Your task to perform on an android device: toggle improve location accuracy Image 0: 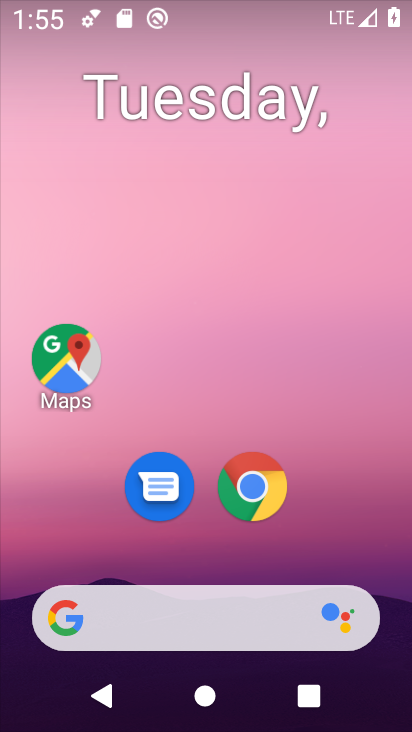
Step 0: press home button
Your task to perform on an android device: toggle improve location accuracy Image 1: 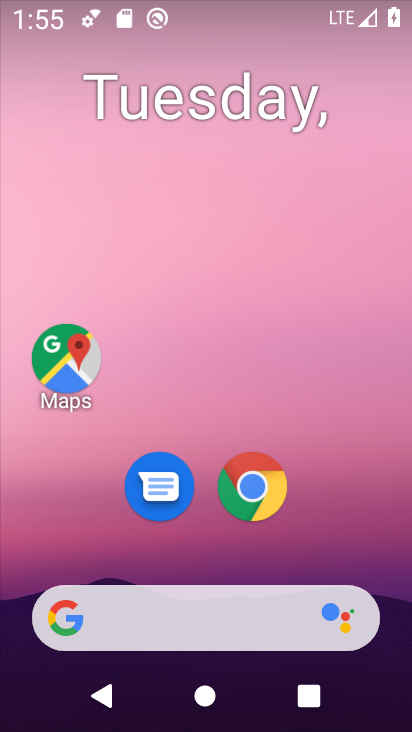
Step 1: drag from (362, 507) to (362, 80)
Your task to perform on an android device: toggle improve location accuracy Image 2: 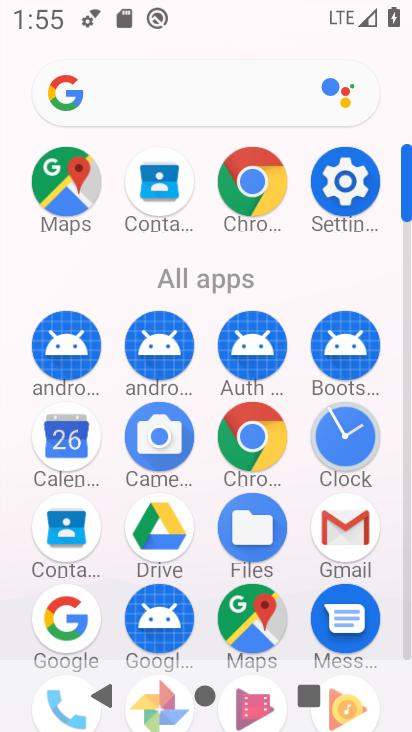
Step 2: click (354, 192)
Your task to perform on an android device: toggle improve location accuracy Image 3: 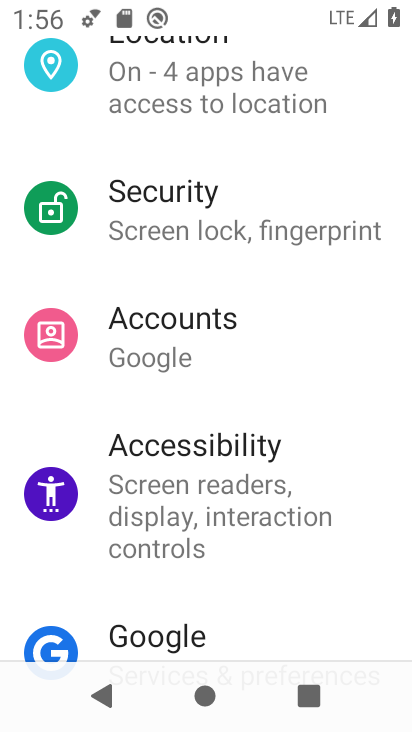
Step 3: drag from (358, 486) to (358, 401)
Your task to perform on an android device: toggle improve location accuracy Image 4: 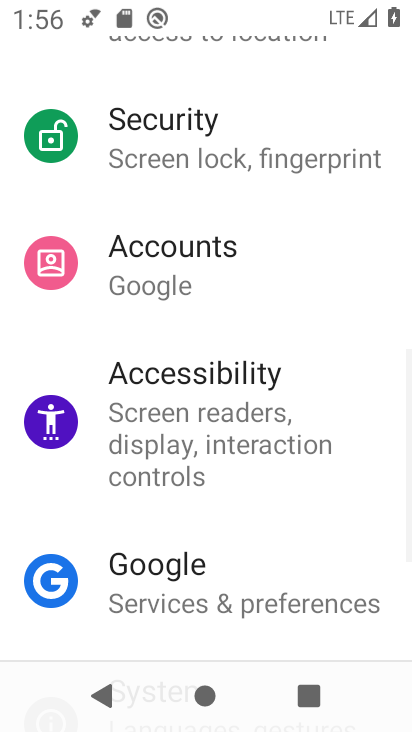
Step 4: drag from (340, 527) to (339, 359)
Your task to perform on an android device: toggle improve location accuracy Image 5: 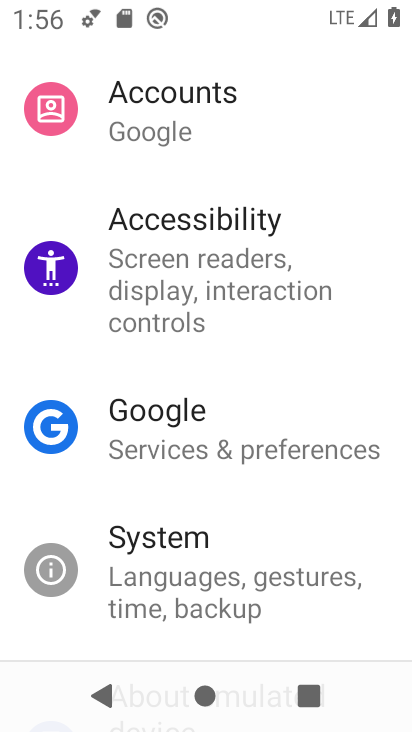
Step 5: drag from (339, 350) to (348, 223)
Your task to perform on an android device: toggle improve location accuracy Image 6: 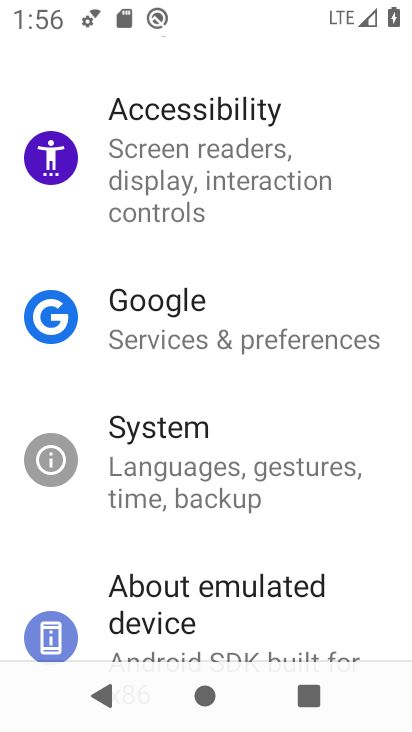
Step 6: drag from (367, 521) to (365, 332)
Your task to perform on an android device: toggle improve location accuracy Image 7: 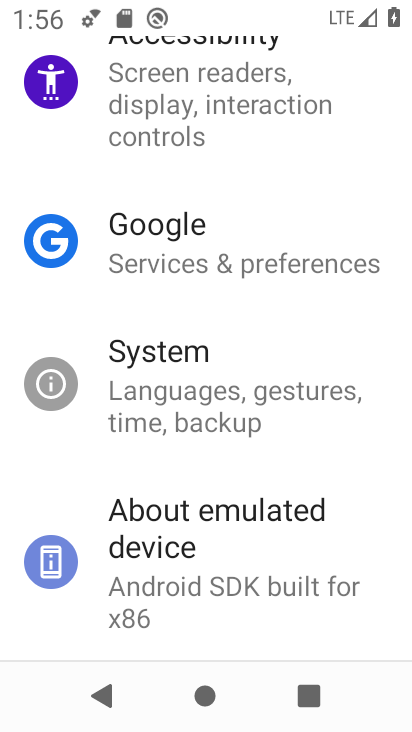
Step 7: drag from (355, 459) to (356, 312)
Your task to perform on an android device: toggle improve location accuracy Image 8: 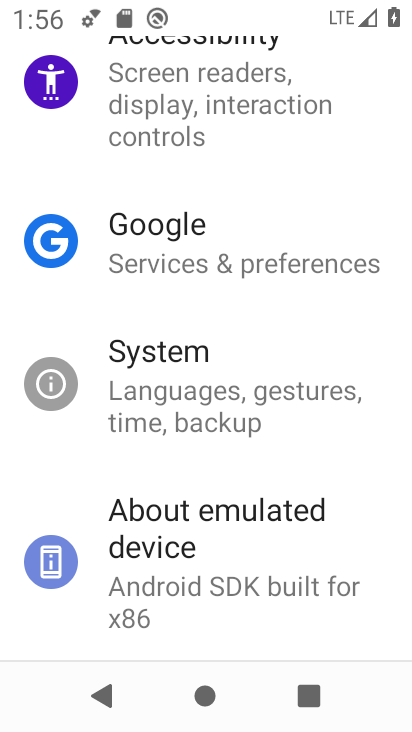
Step 8: drag from (356, 188) to (368, 431)
Your task to perform on an android device: toggle improve location accuracy Image 9: 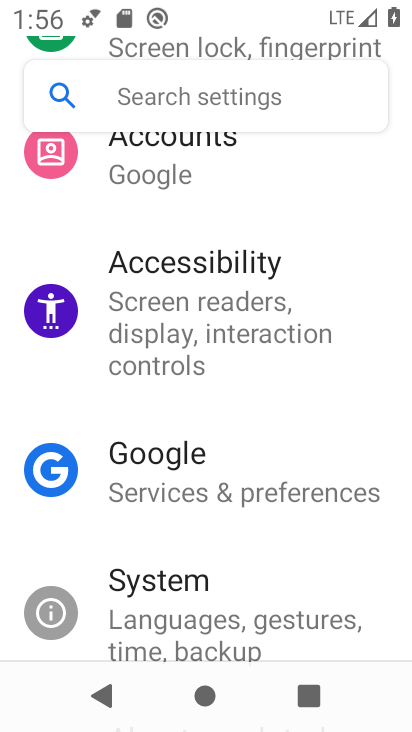
Step 9: drag from (368, 251) to (369, 376)
Your task to perform on an android device: toggle improve location accuracy Image 10: 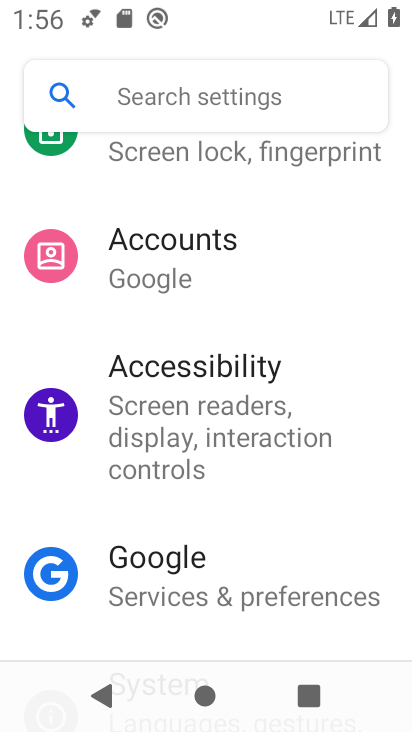
Step 10: drag from (360, 243) to (363, 362)
Your task to perform on an android device: toggle improve location accuracy Image 11: 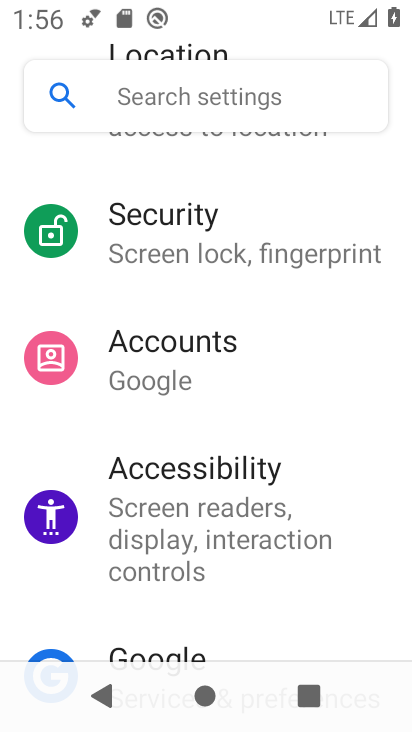
Step 11: drag from (359, 196) to (360, 367)
Your task to perform on an android device: toggle improve location accuracy Image 12: 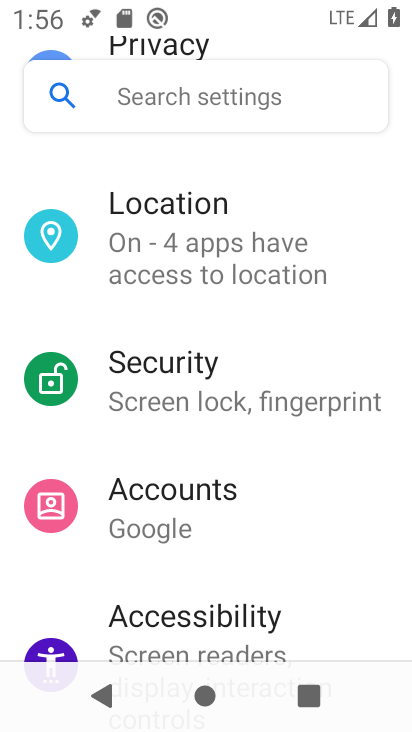
Step 12: drag from (360, 188) to (360, 352)
Your task to perform on an android device: toggle improve location accuracy Image 13: 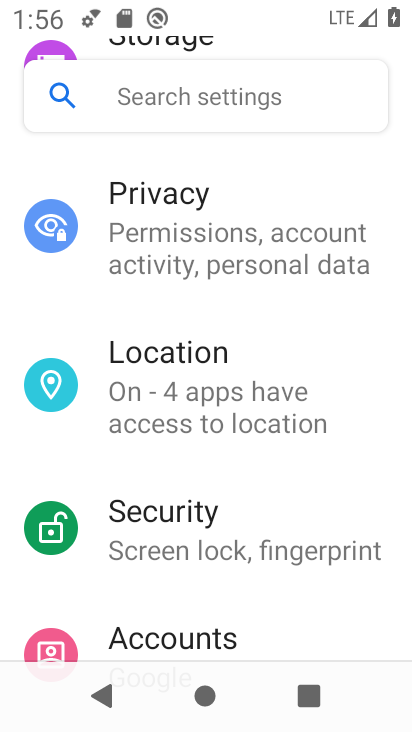
Step 13: click (320, 404)
Your task to perform on an android device: toggle improve location accuracy Image 14: 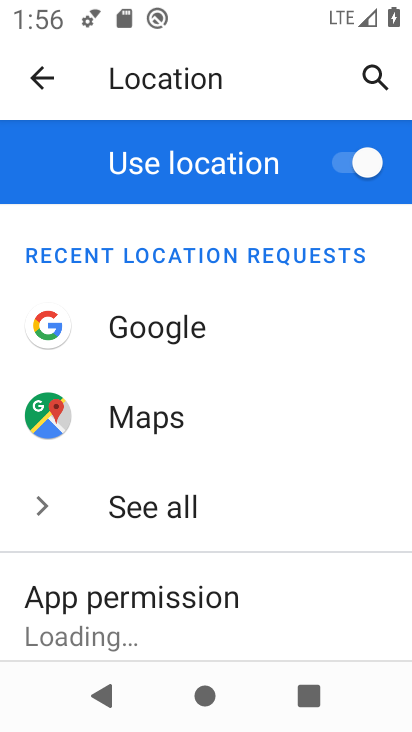
Step 14: drag from (304, 588) to (309, 471)
Your task to perform on an android device: toggle improve location accuracy Image 15: 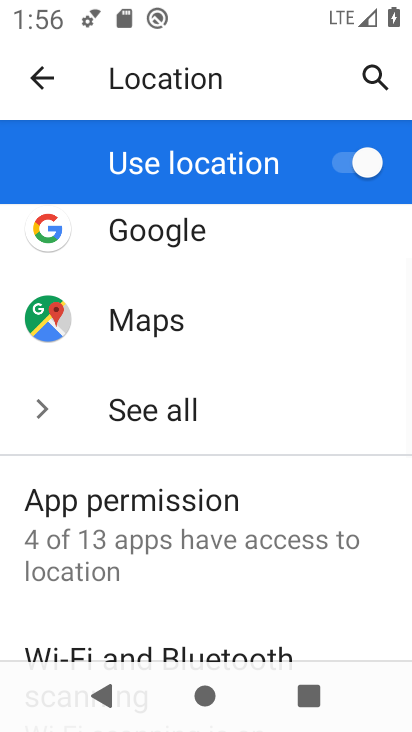
Step 15: drag from (309, 594) to (309, 470)
Your task to perform on an android device: toggle improve location accuracy Image 16: 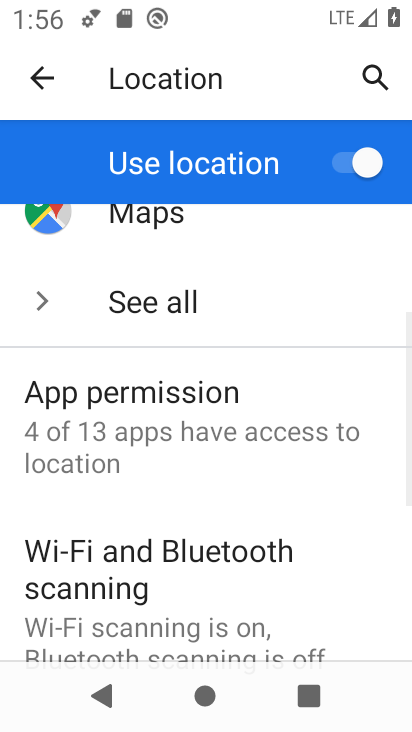
Step 16: drag from (330, 586) to (327, 452)
Your task to perform on an android device: toggle improve location accuracy Image 17: 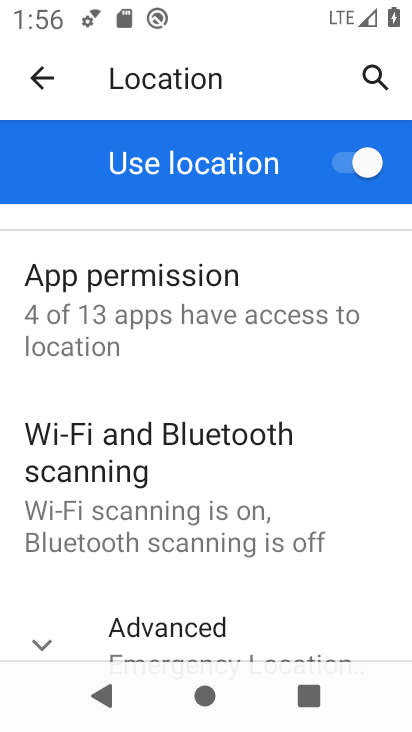
Step 17: drag from (316, 612) to (317, 427)
Your task to perform on an android device: toggle improve location accuracy Image 18: 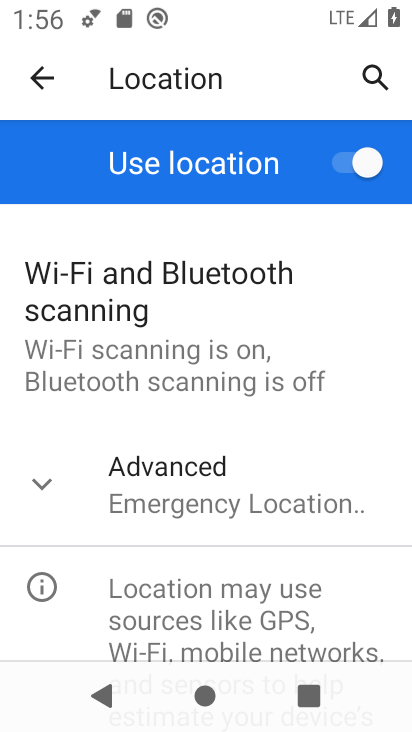
Step 18: click (306, 476)
Your task to perform on an android device: toggle improve location accuracy Image 19: 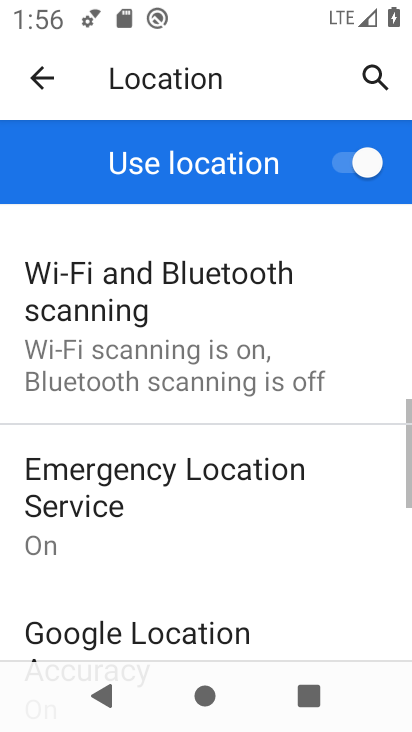
Step 19: drag from (326, 596) to (327, 450)
Your task to perform on an android device: toggle improve location accuracy Image 20: 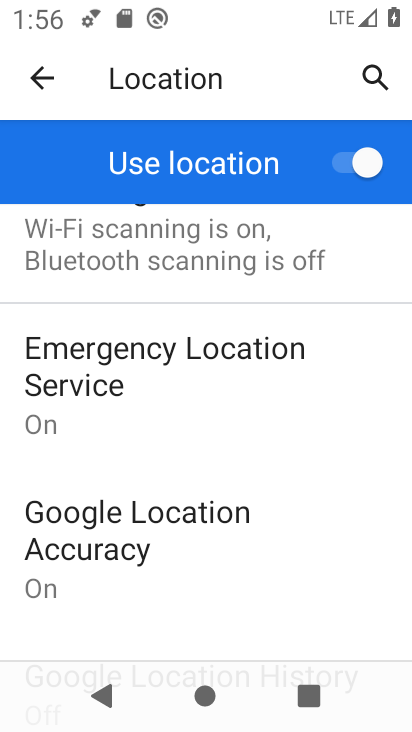
Step 20: drag from (327, 548) to (330, 427)
Your task to perform on an android device: toggle improve location accuracy Image 21: 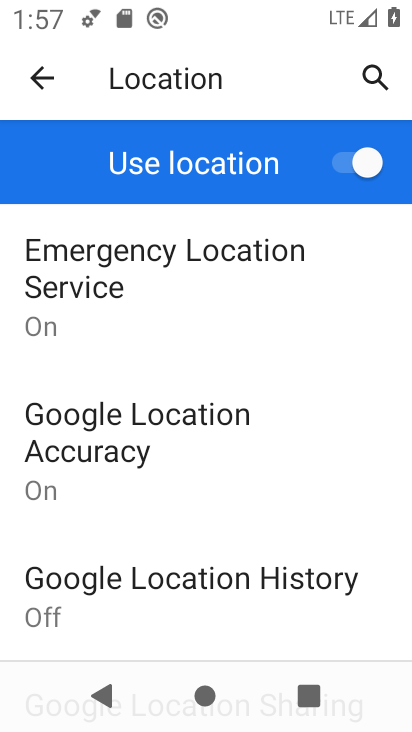
Step 21: click (245, 428)
Your task to perform on an android device: toggle improve location accuracy Image 22: 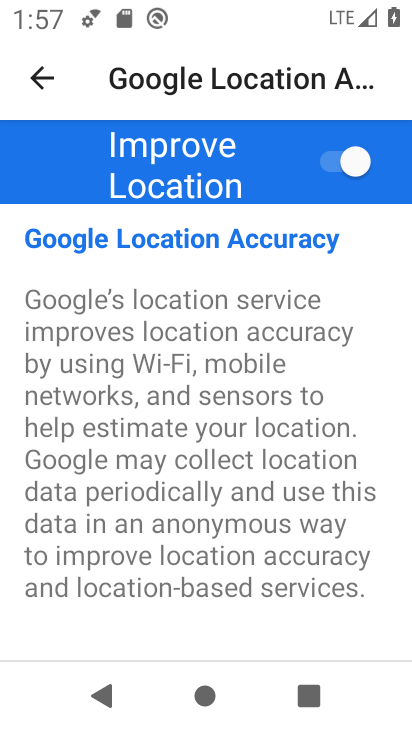
Step 22: click (355, 159)
Your task to perform on an android device: toggle improve location accuracy Image 23: 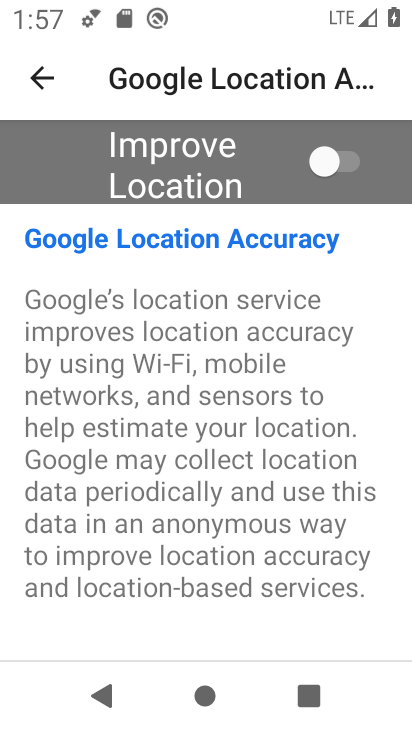
Step 23: task complete